Your task to perform on an android device: change keyboard looks Image 0: 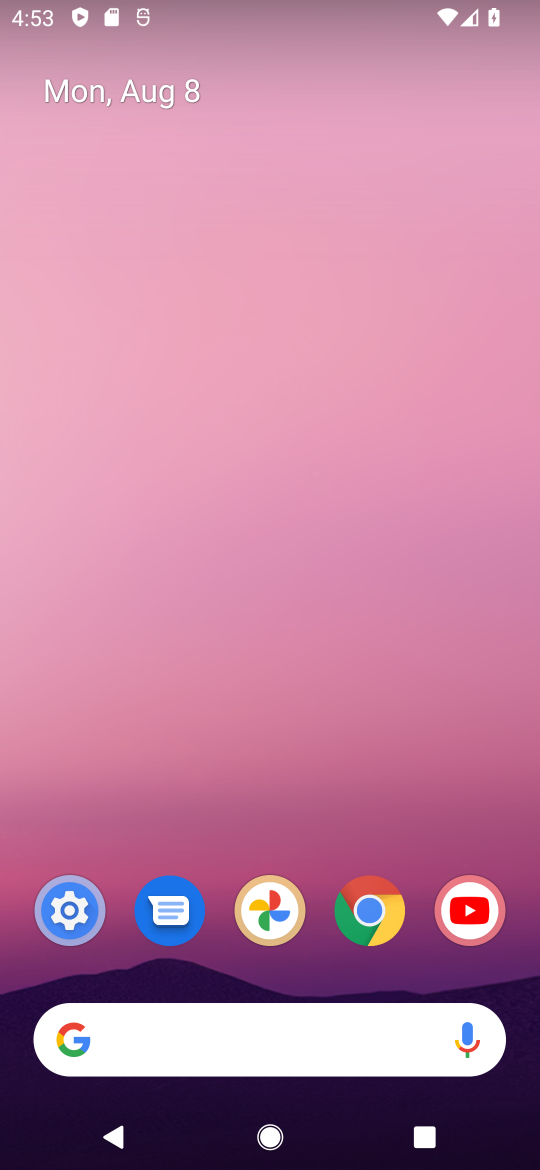
Step 0: drag from (258, 1030) to (293, 464)
Your task to perform on an android device: change keyboard looks Image 1: 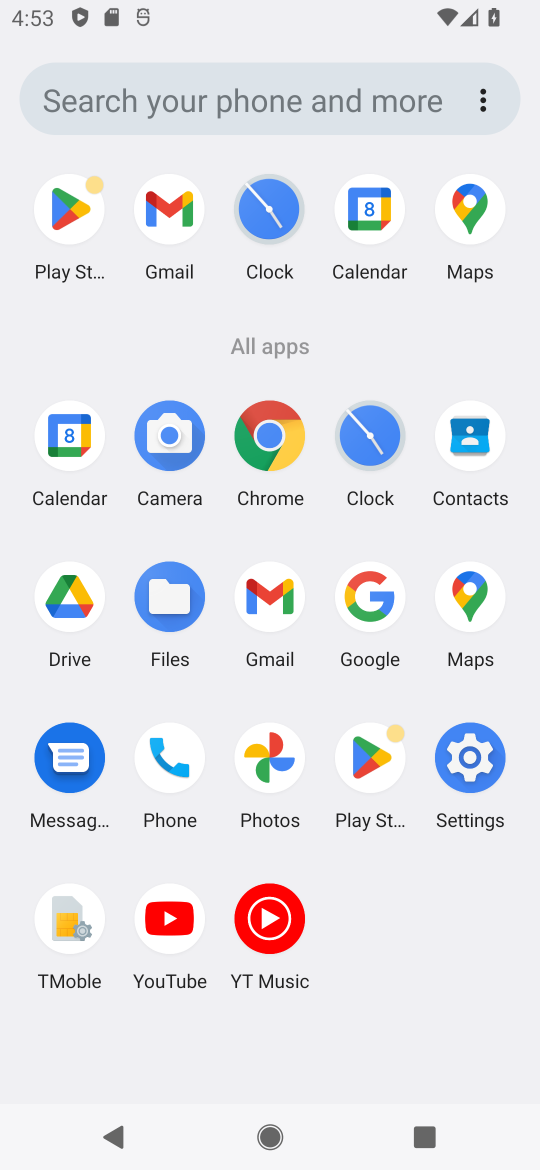
Step 1: click (472, 755)
Your task to perform on an android device: change keyboard looks Image 2: 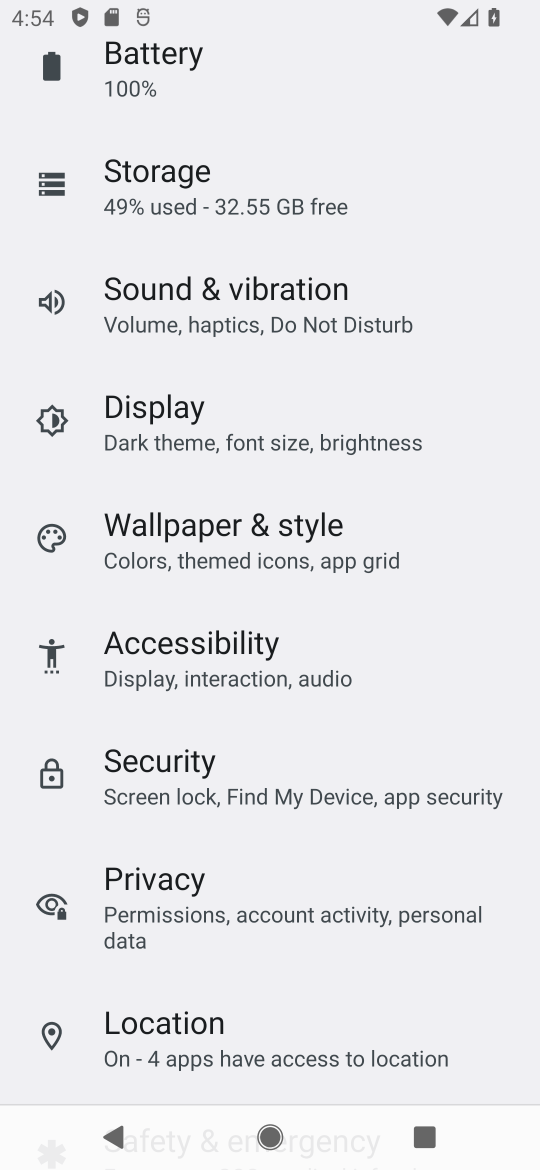
Step 2: drag from (235, 834) to (277, 728)
Your task to perform on an android device: change keyboard looks Image 3: 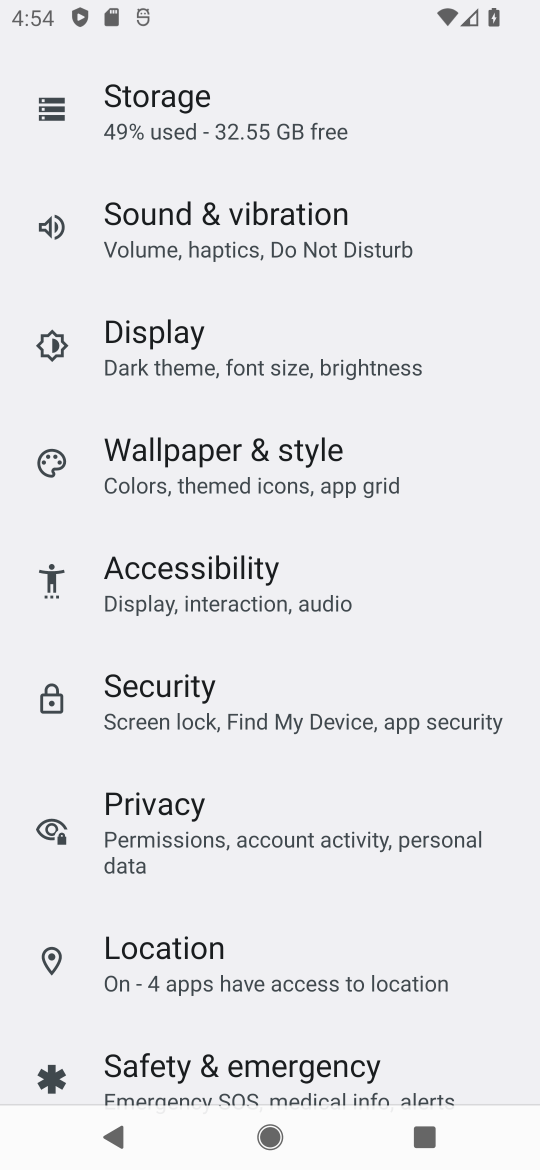
Step 3: drag from (215, 879) to (336, 715)
Your task to perform on an android device: change keyboard looks Image 4: 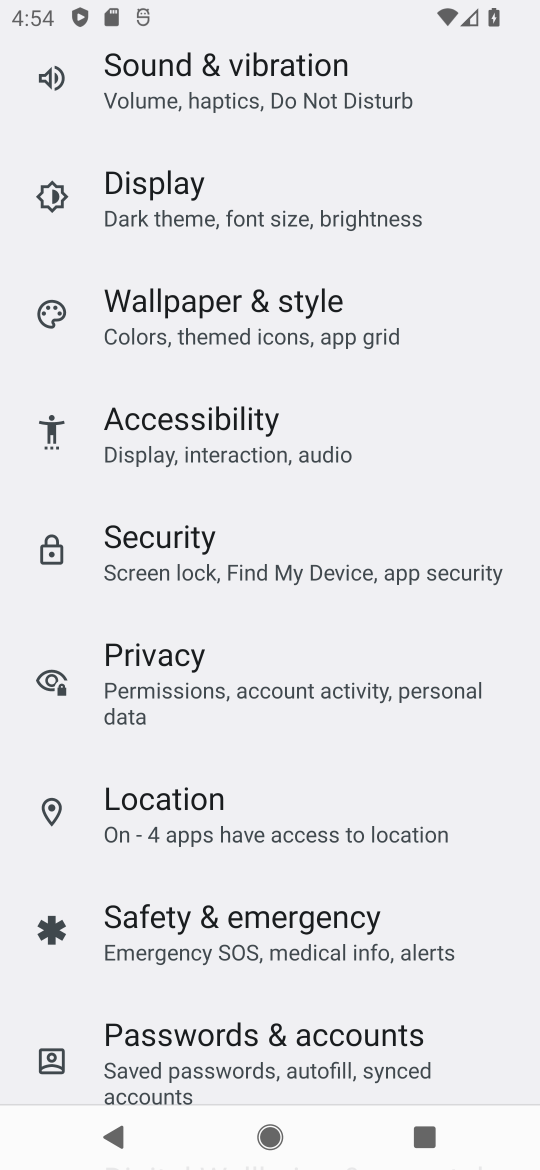
Step 4: drag from (211, 867) to (321, 688)
Your task to perform on an android device: change keyboard looks Image 5: 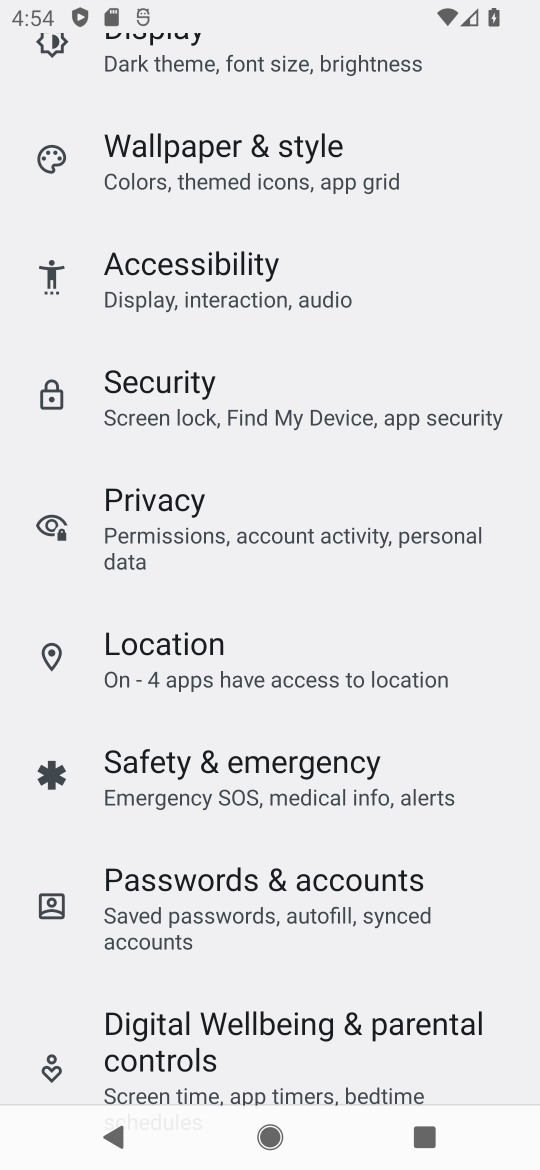
Step 5: drag from (191, 817) to (289, 669)
Your task to perform on an android device: change keyboard looks Image 6: 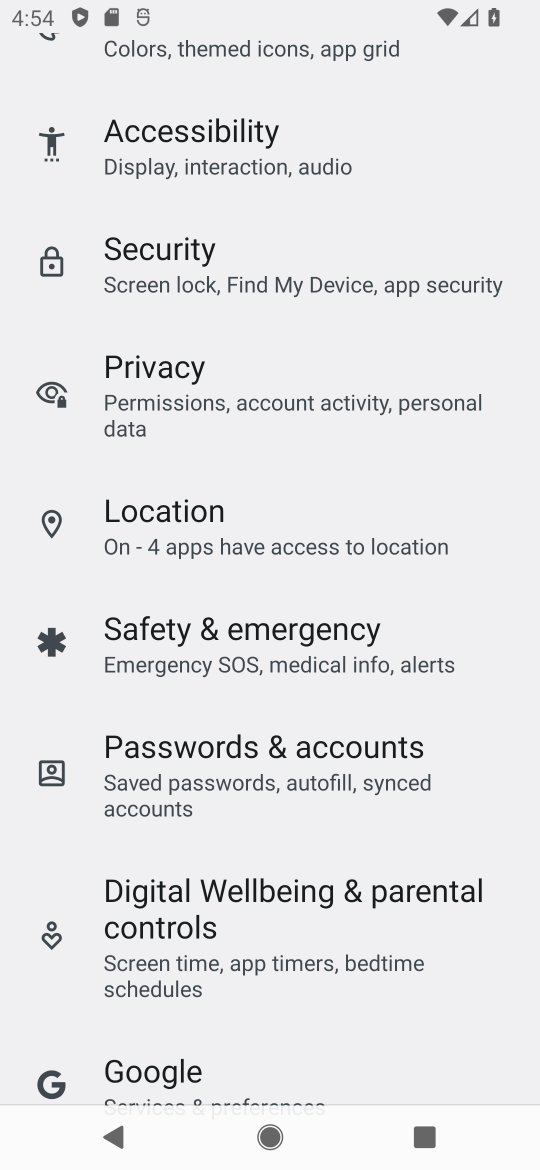
Step 6: drag from (187, 848) to (335, 672)
Your task to perform on an android device: change keyboard looks Image 7: 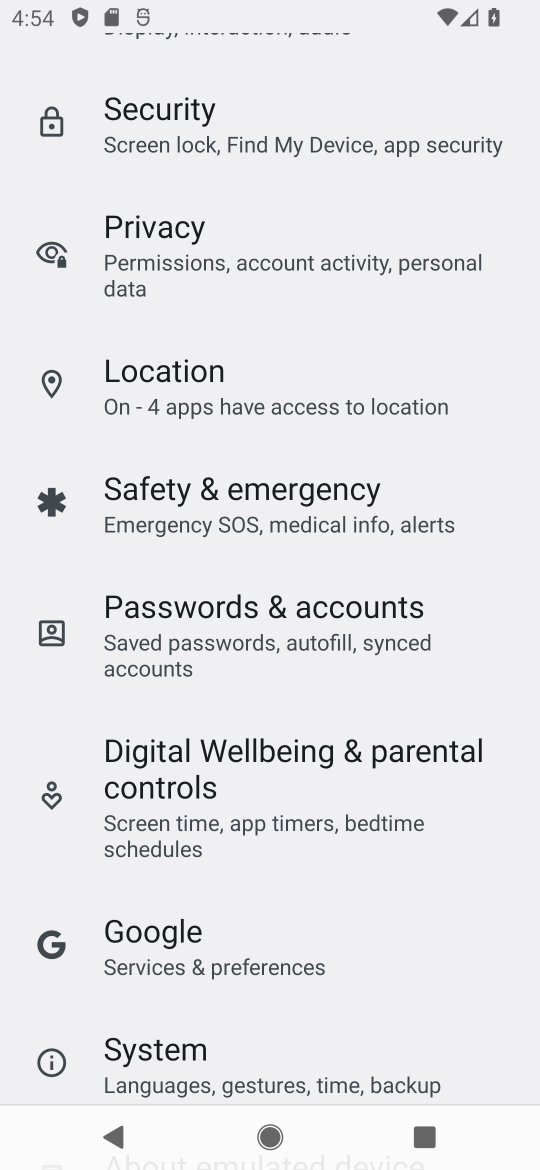
Step 7: drag from (242, 971) to (387, 704)
Your task to perform on an android device: change keyboard looks Image 8: 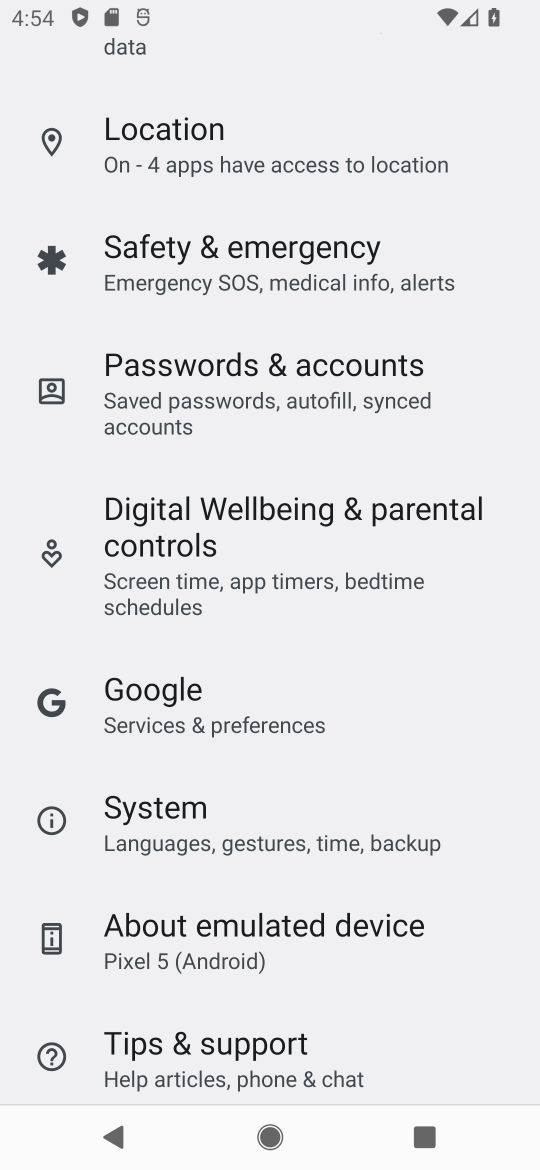
Step 8: click (213, 837)
Your task to perform on an android device: change keyboard looks Image 9: 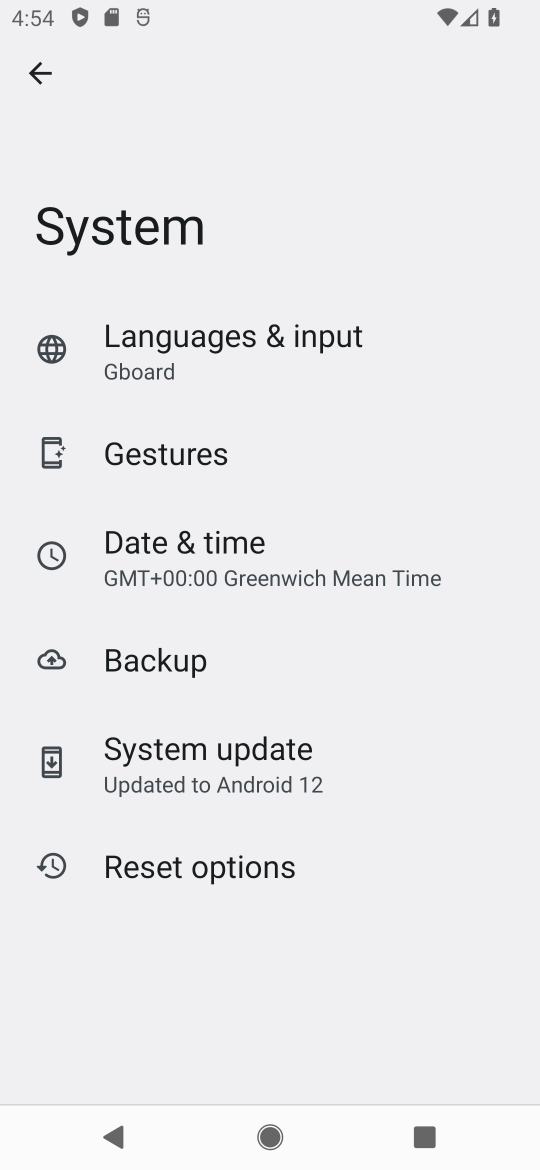
Step 9: click (216, 347)
Your task to perform on an android device: change keyboard looks Image 10: 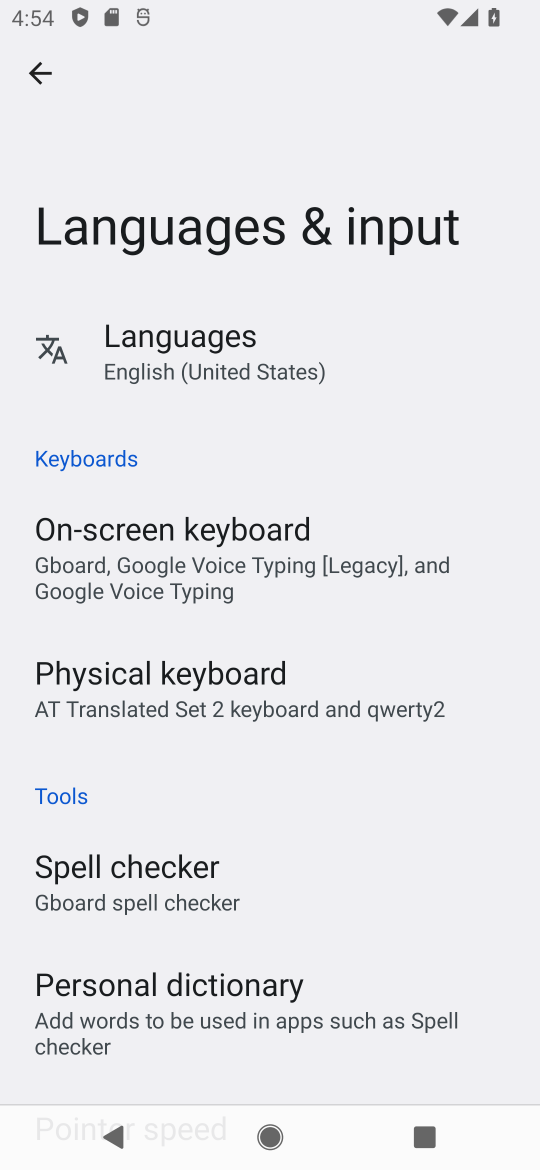
Step 10: click (202, 546)
Your task to perform on an android device: change keyboard looks Image 11: 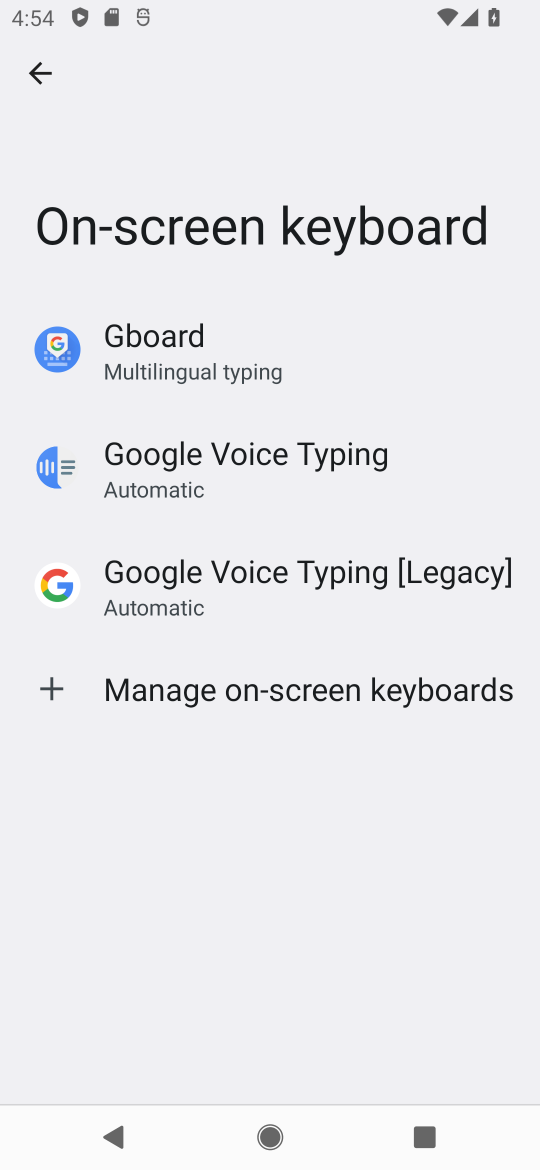
Step 11: click (189, 368)
Your task to perform on an android device: change keyboard looks Image 12: 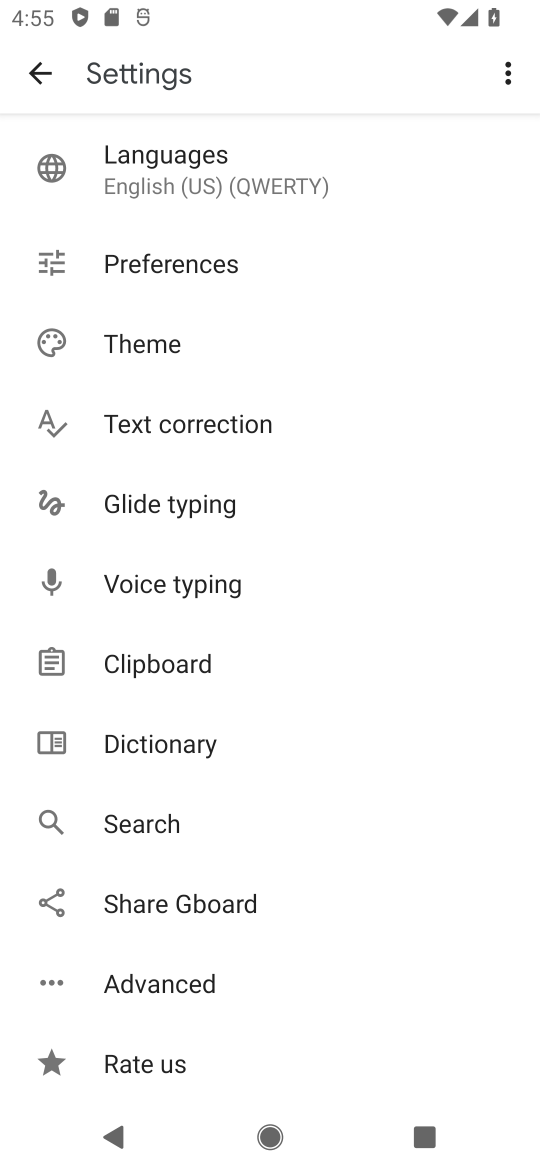
Step 12: click (163, 354)
Your task to perform on an android device: change keyboard looks Image 13: 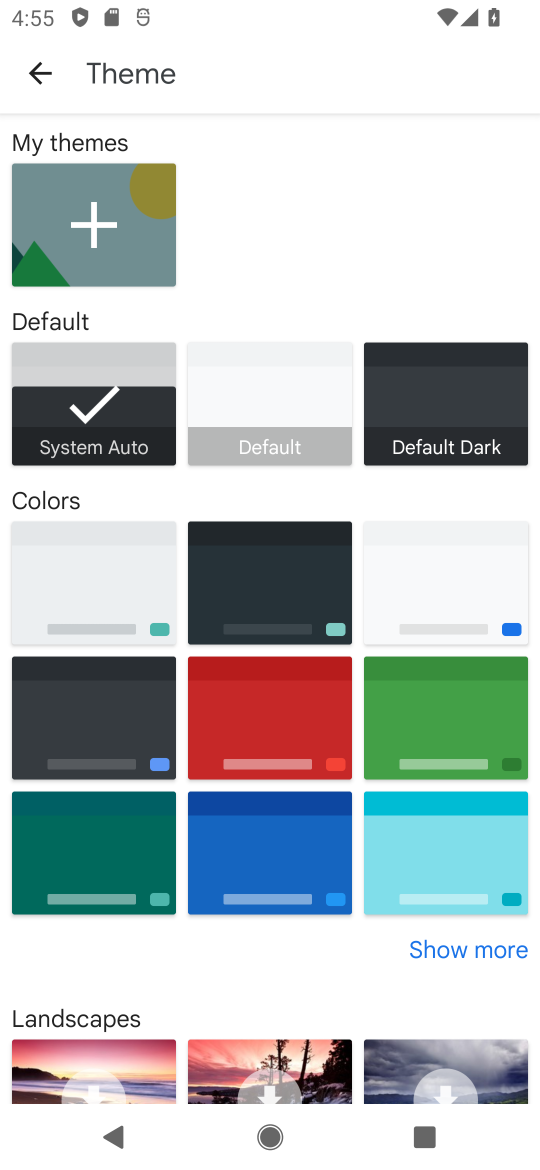
Step 13: click (112, 598)
Your task to perform on an android device: change keyboard looks Image 14: 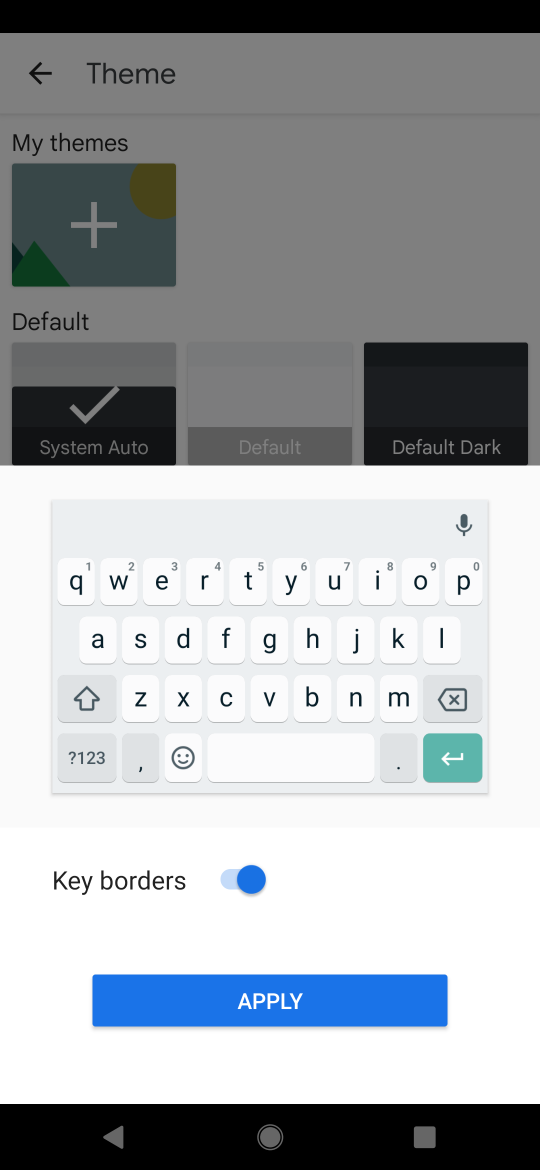
Step 14: click (286, 995)
Your task to perform on an android device: change keyboard looks Image 15: 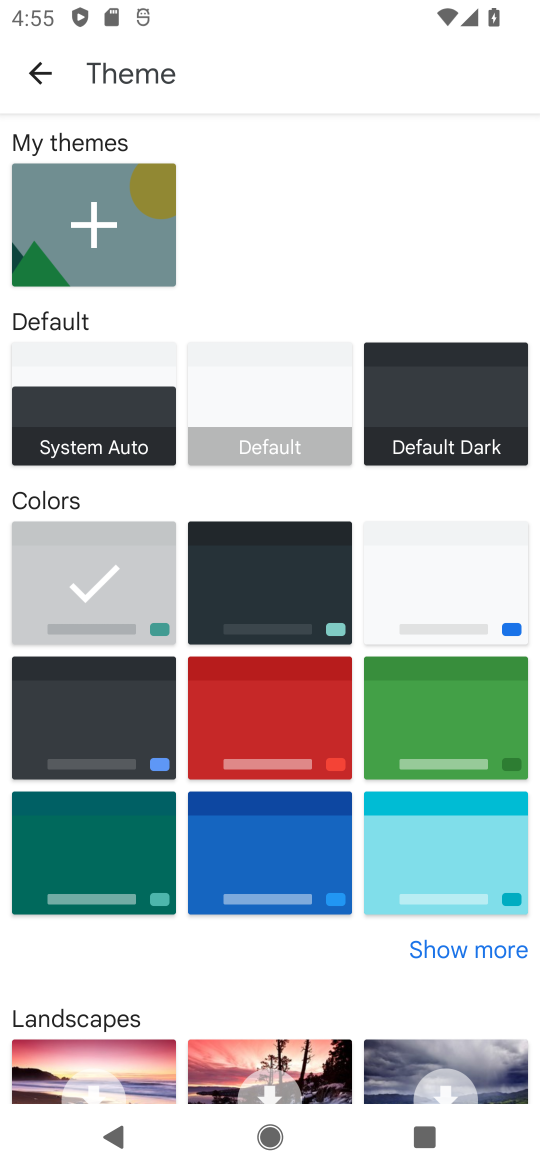
Step 15: task complete